Your task to perform on an android device: Show me popular videos on Youtube Image 0: 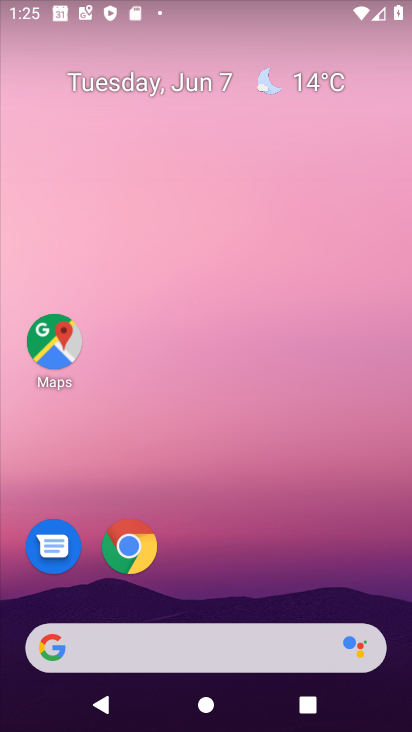
Step 0: drag from (266, 602) to (178, 200)
Your task to perform on an android device: Show me popular videos on Youtube Image 1: 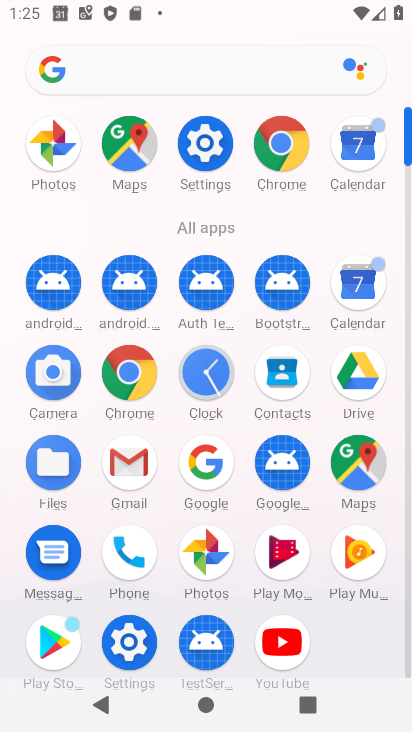
Step 1: click (279, 638)
Your task to perform on an android device: Show me popular videos on Youtube Image 2: 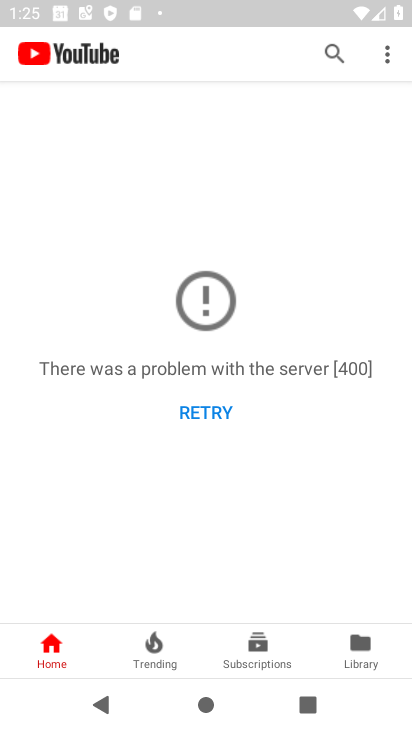
Step 2: click (156, 654)
Your task to perform on an android device: Show me popular videos on Youtube Image 3: 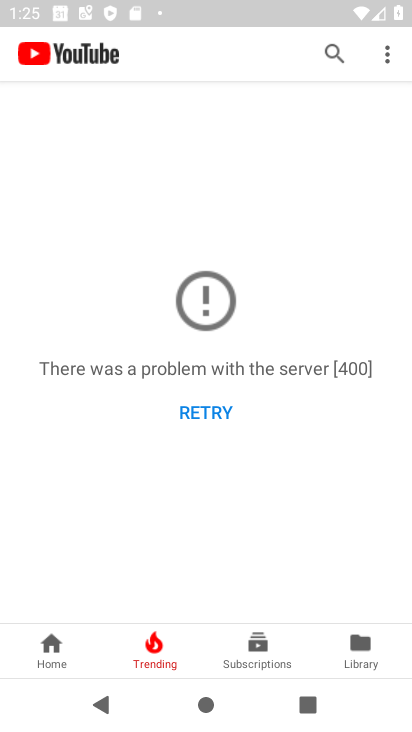
Step 3: task complete